Your task to perform on an android device: toggle location history Image 0: 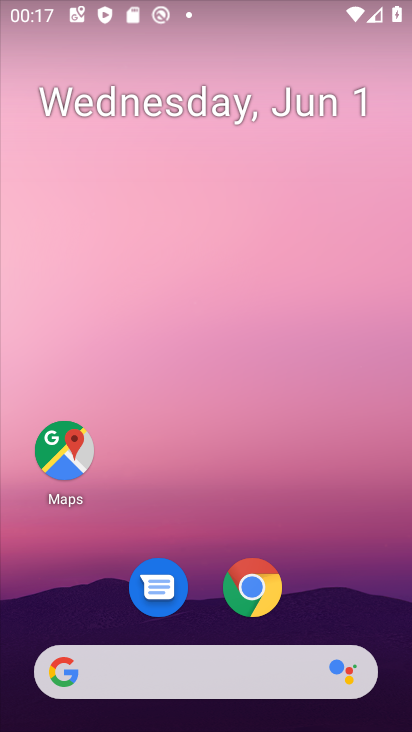
Step 0: drag from (337, 605) to (330, 0)
Your task to perform on an android device: toggle location history Image 1: 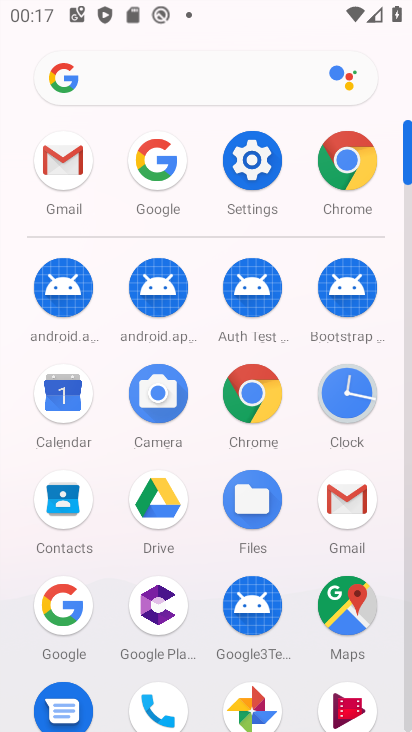
Step 1: click (245, 168)
Your task to perform on an android device: toggle location history Image 2: 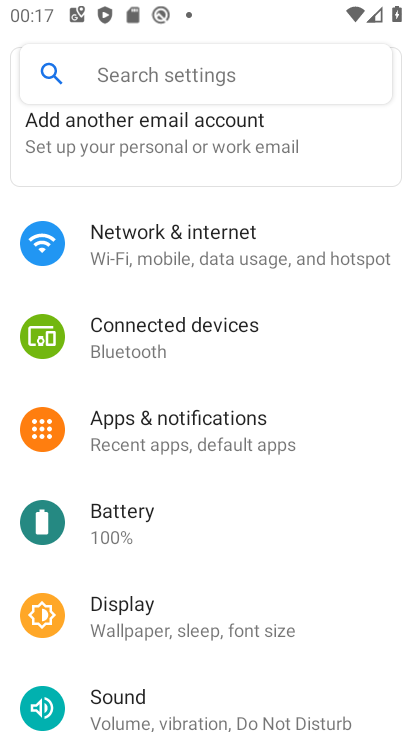
Step 2: drag from (172, 450) to (208, 64)
Your task to perform on an android device: toggle location history Image 3: 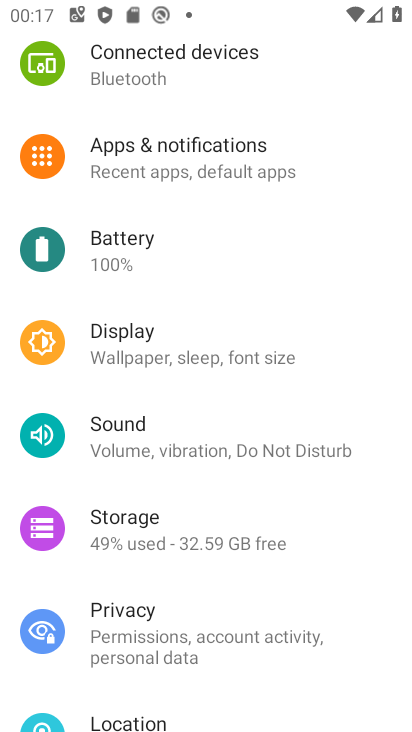
Step 3: drag from (120, 679) to (192, 424)
Your task to perform on an android device: toggle location history Image 4: 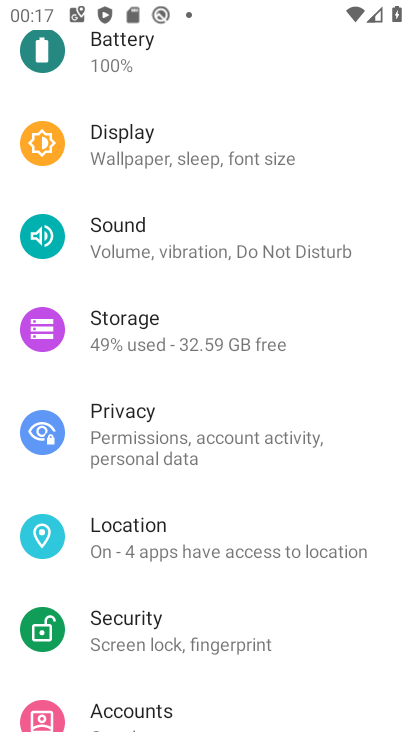
Step 4: click (115, 526)
Your task to perform on an android device: toggle location history Image 5: 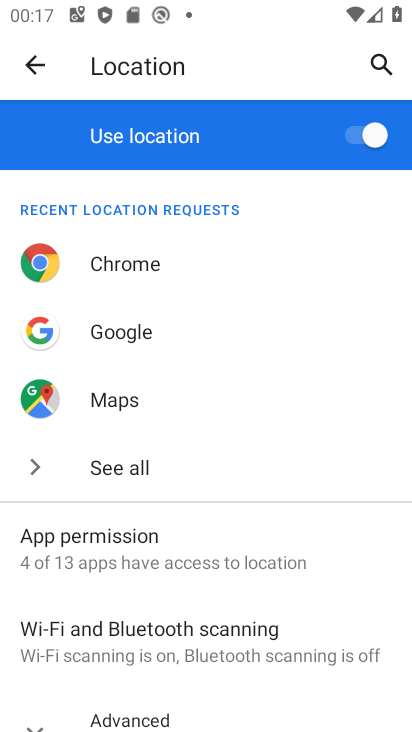
Step 5: drag from (165, 624) to (245, 160)
Your task to perform on an android device: toggle location history Image 6: 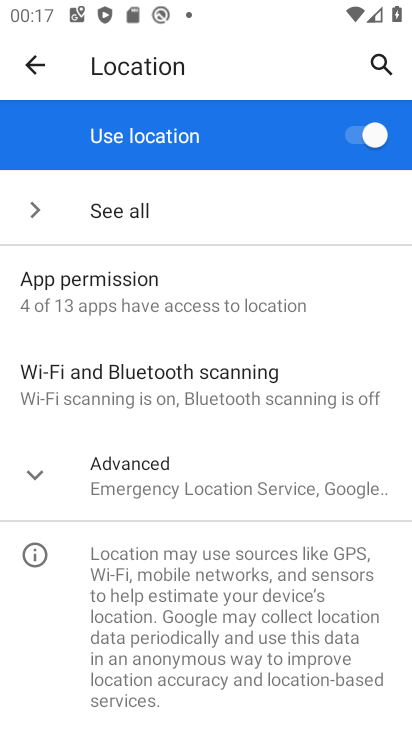
Step 6: click (164, 482)
Your task to perform on an android device: toggle location history Image 7: 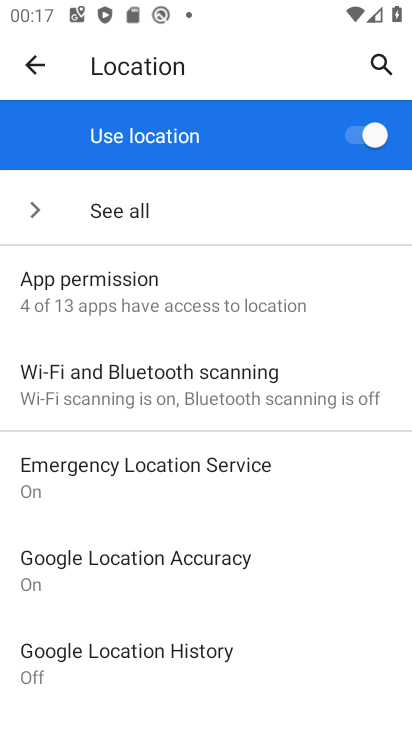
Step 7: click (164, 644)
Your task to perform on an android device: toggle location history Image 8: 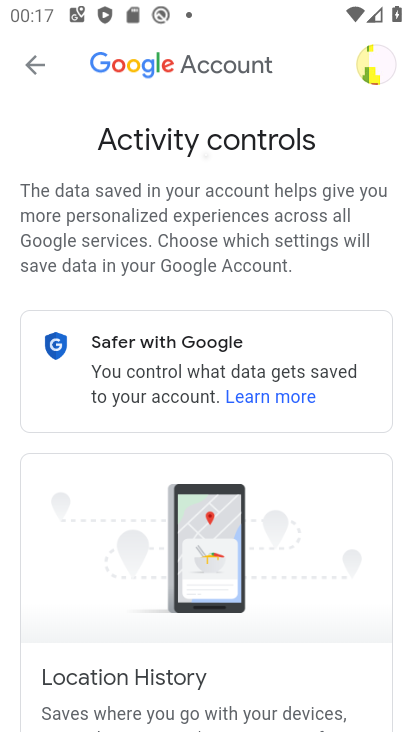
Step 8: drag from (175, 585) to (274, 117)
Your task to perform on an android device: toggle location history Image 9: 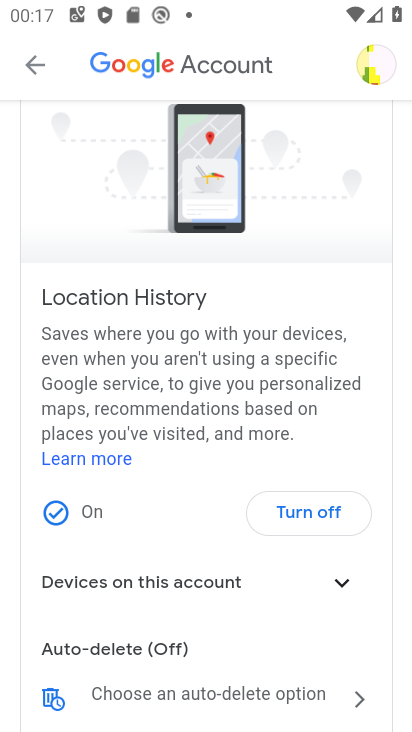
Step 9: click (272, 514)
Your task to perform on an android device: toggle location history Image 10: 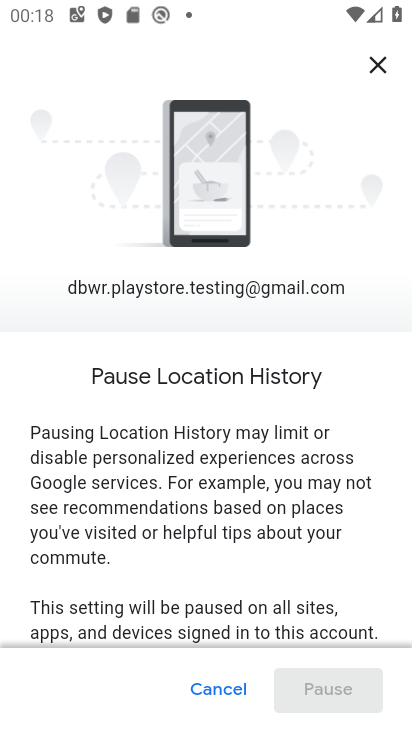
Step 10: drag from (306, 581) to (341, 14)
Your task to perform on an android device: toggle location history Image 11: 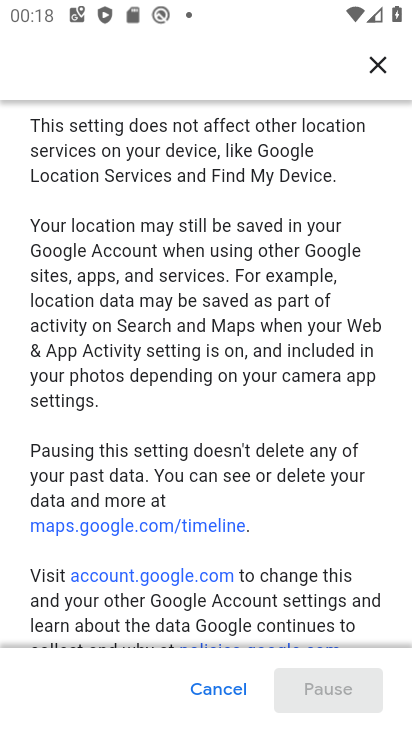
Step 11: drag from (295, 622) to (344, 101)
Your task to perform on an android device: toggle location history Image 12: 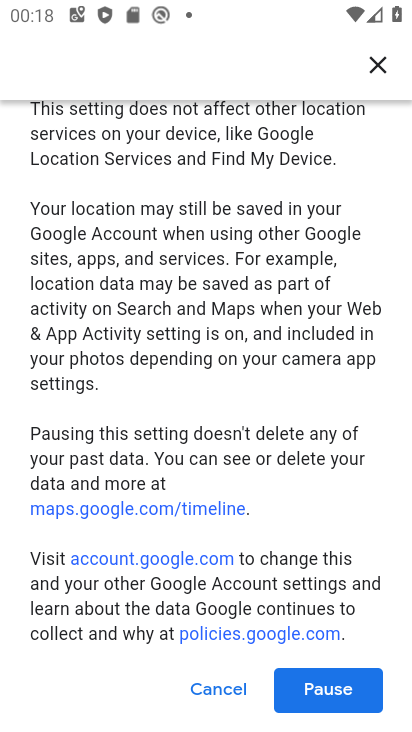
Step 12: click (307, 681)
Your task to perform on an android device: toggle location history Image 13: 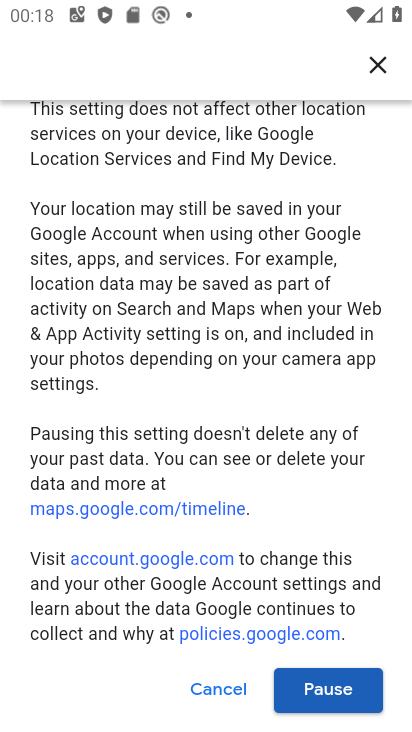
Step 13: click (295, 690)
Your task to perform on an android device: toggle location history Image 14: 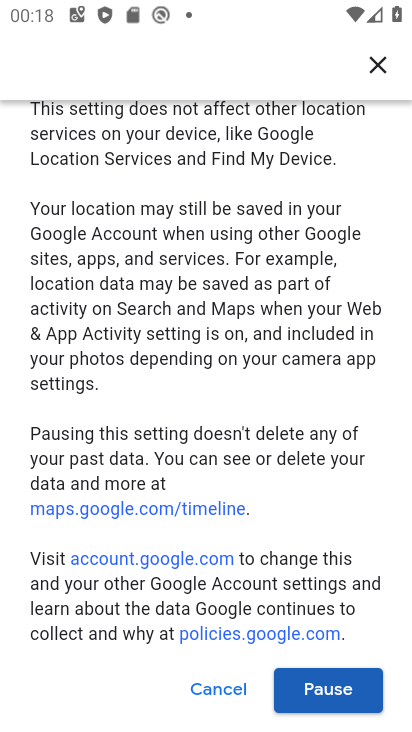
Step 14: click (339, 694)
Your task to perform on an android device: toggle location history Image 15: 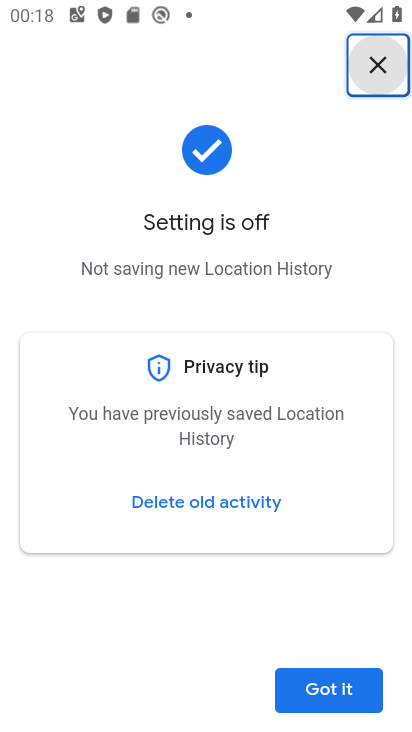
Step 15: task complete